Your task to perform on an android device: See recent photos Image 0: 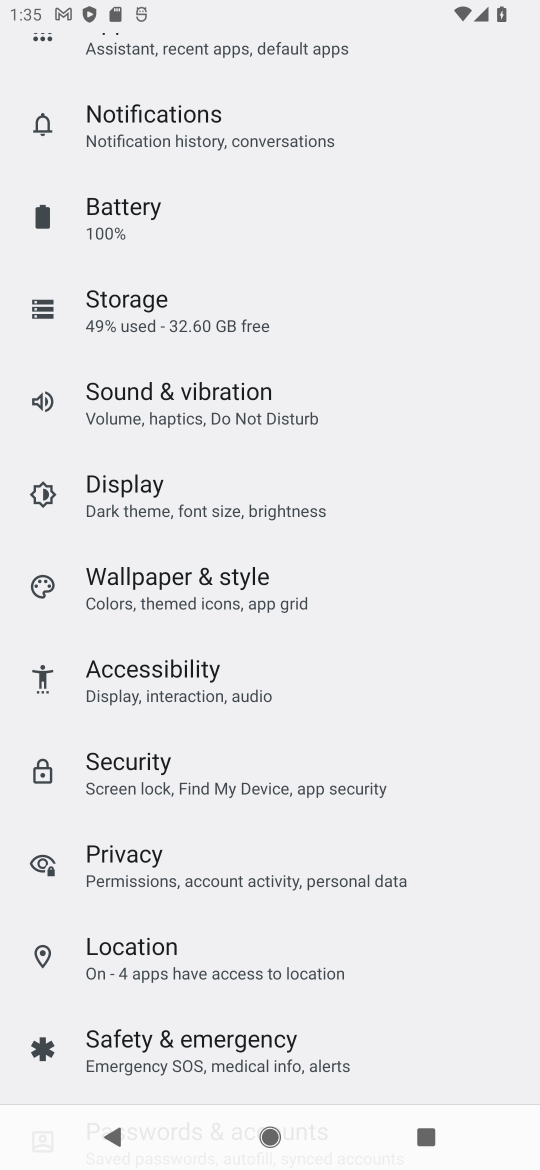
Step 0: press home button
Your task to perform on an android device: See recent photos Image 1: 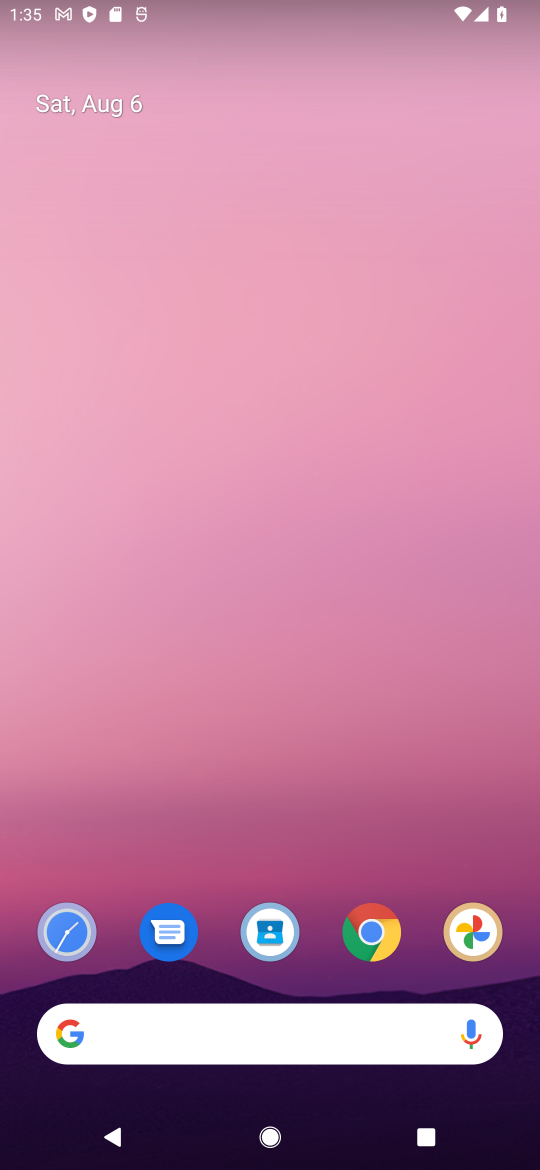
Step 1: drag from (316, 913) to (359, 23)
Your task to perform on an android device: See recent photos Image 2: 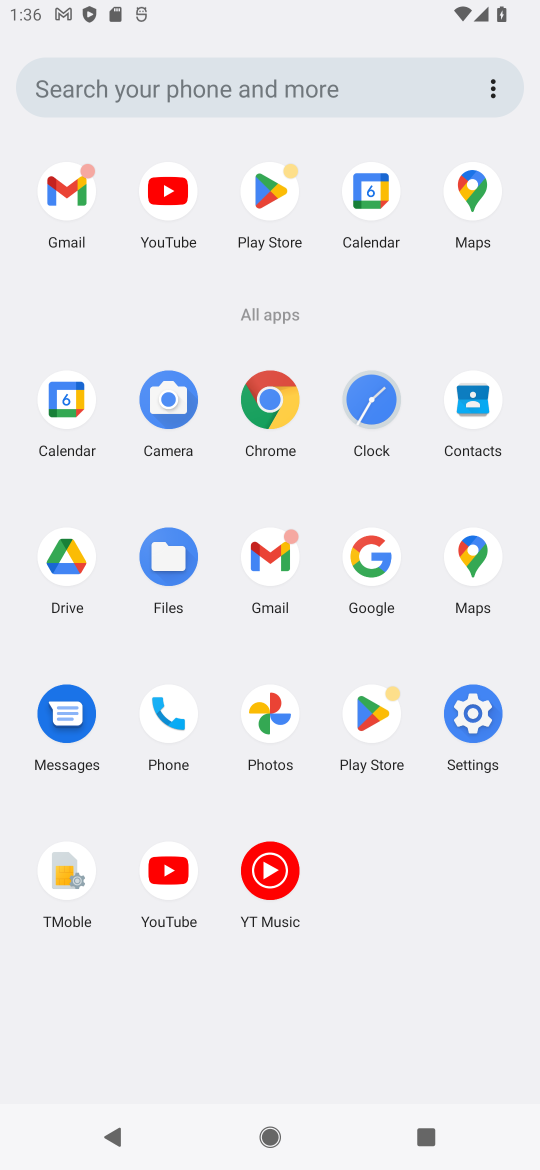
Step 2: click (276, 714)
Your task to perform on an android device: See recent photos Image 3: 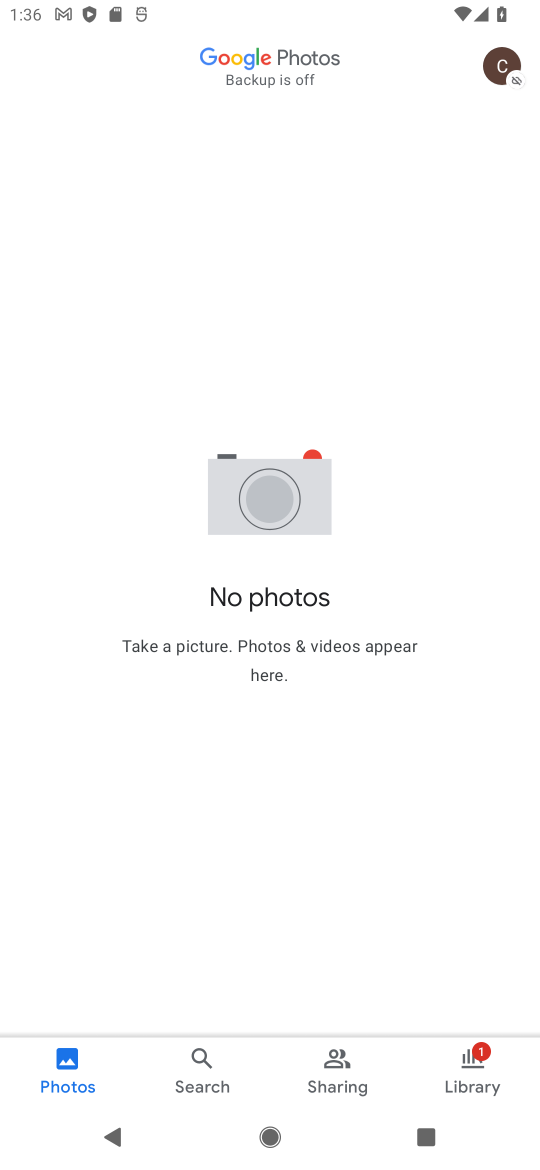
Step 3: click (60, 1069)
Your task to perform on an android device: See recent photos Image 4: 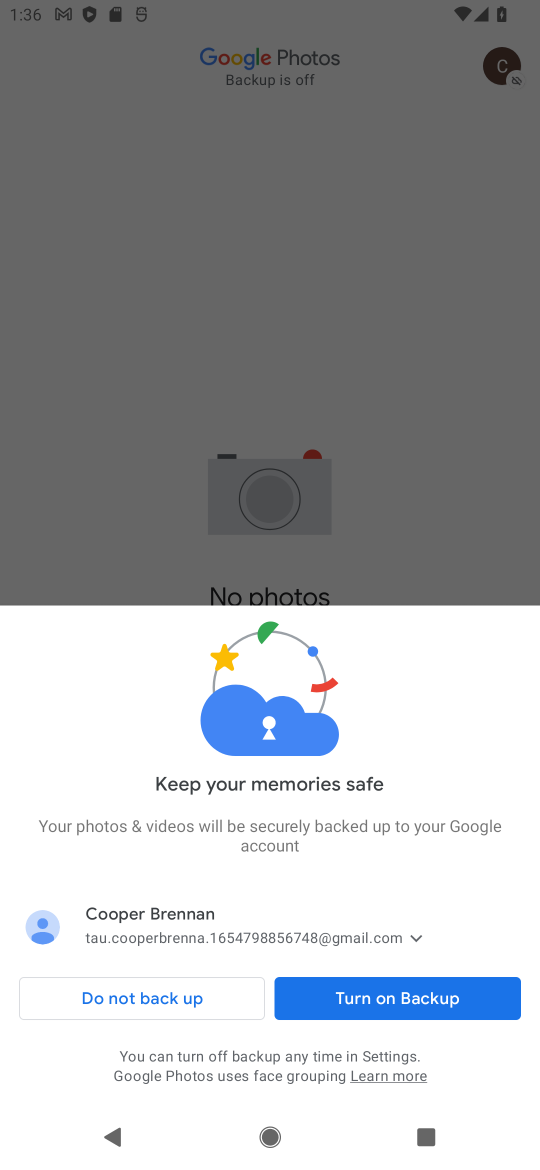
Step 4: click (407, 1003)
Your task to perform on an android device: See recent photos Image 5: 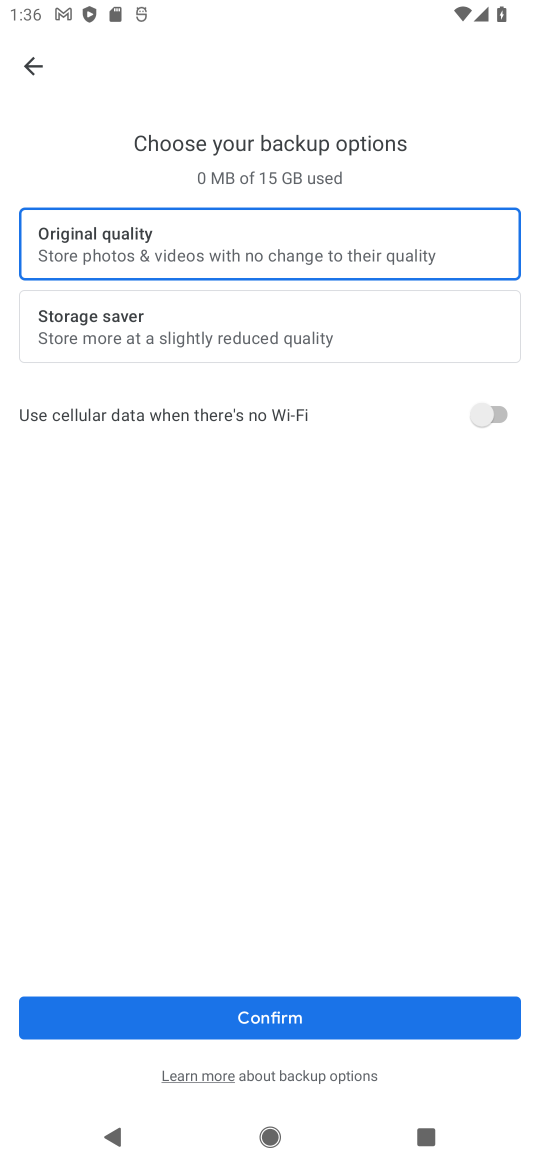
Step 5: click (245, 1015)
Your task to perform on an android device: See recent photos Image 6: 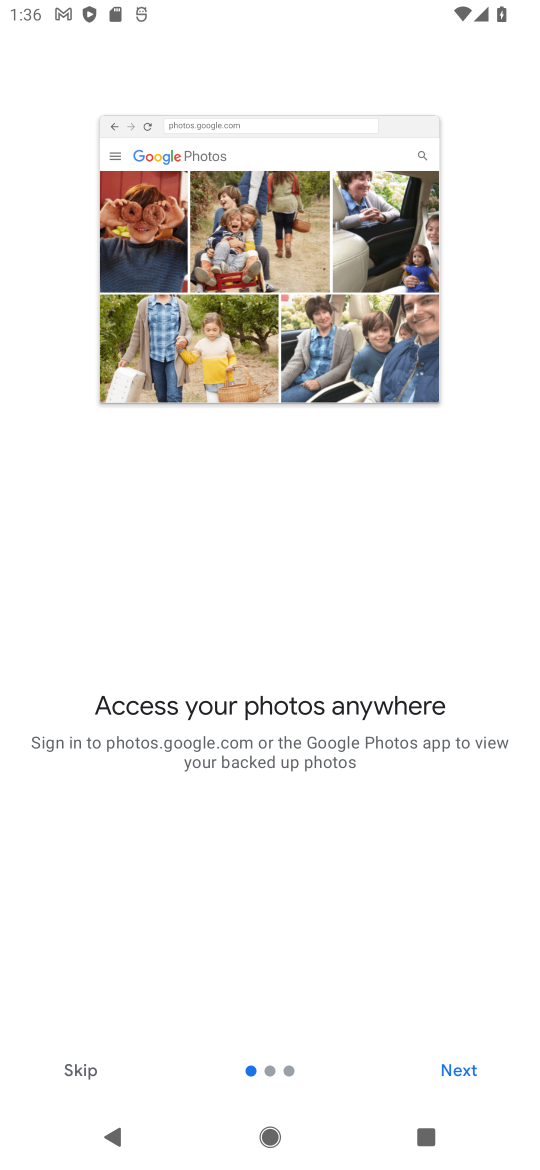
Step 6: click (448, 1065)
Your task to perform on an android device: See recent photos Image 7: 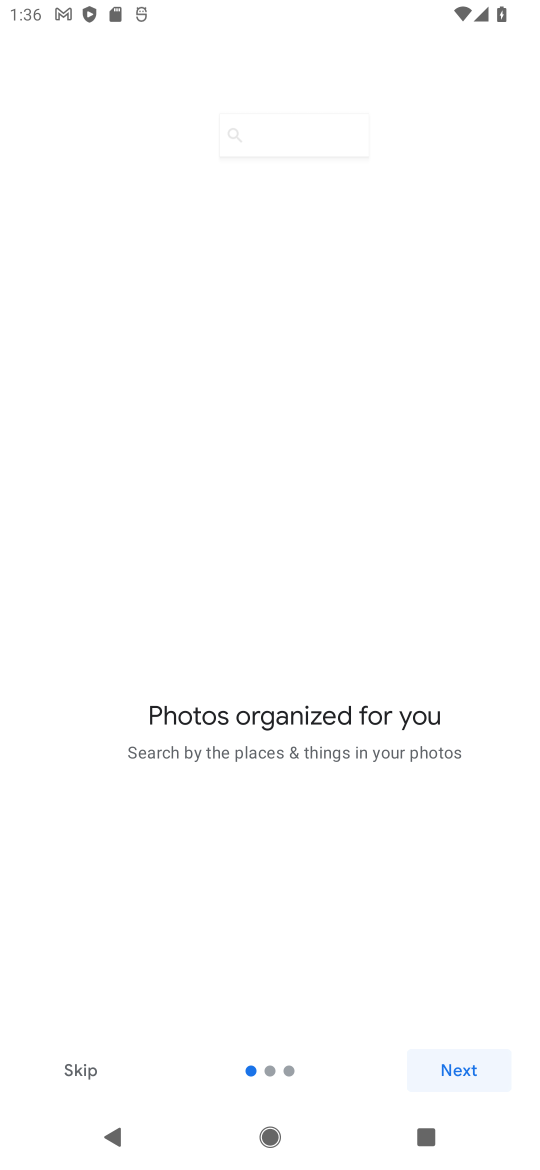
Step 7: click (448, 1065)
Your task to perform on an android device: See recent photos Image 8: 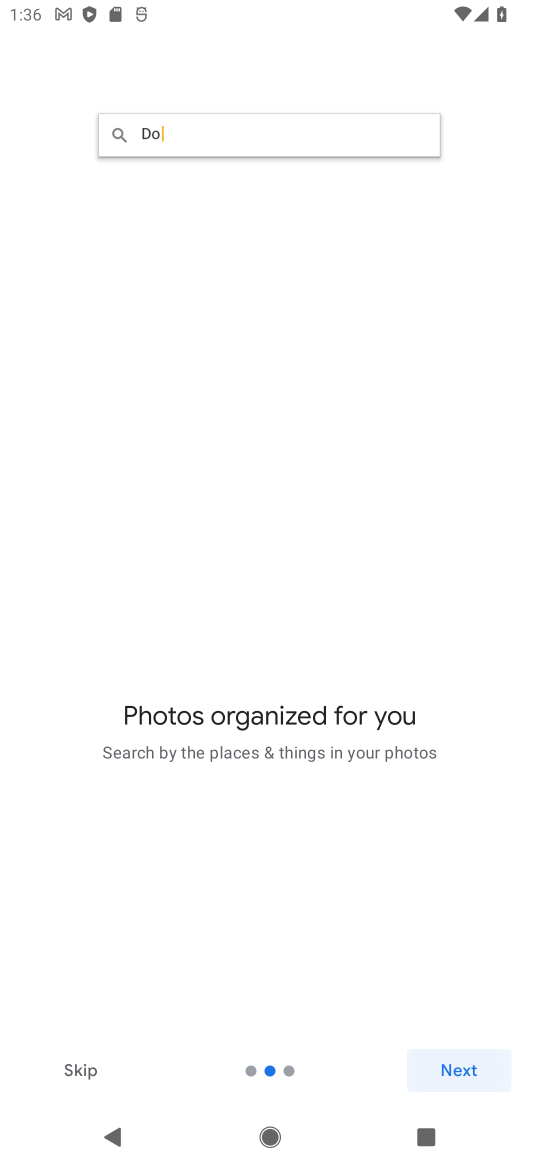
Step 8: click (448, 1065)
Your task to perform on an android device: See recent photos Image 9: 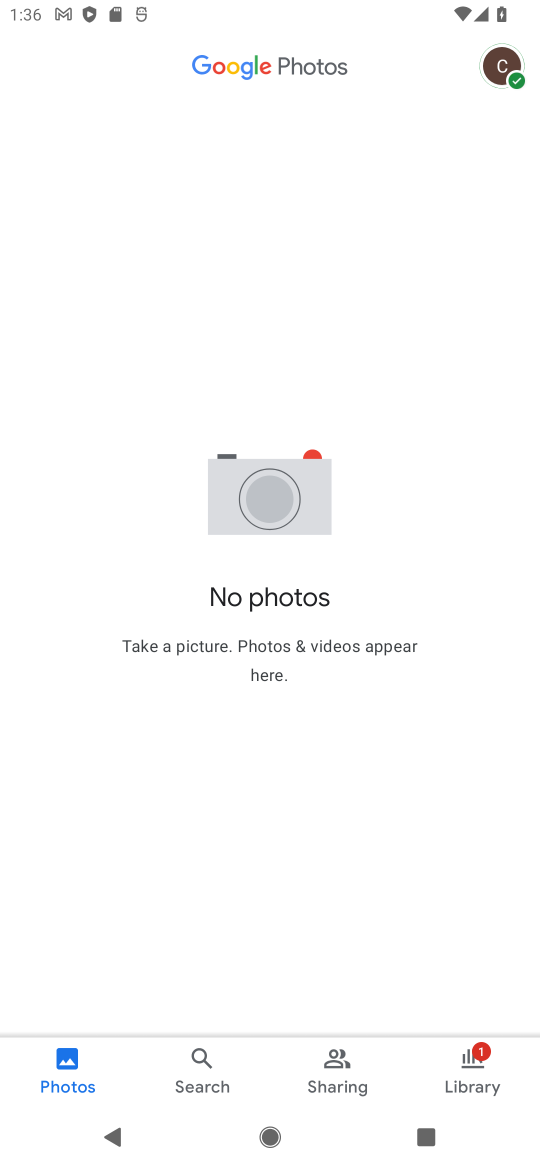
Step 9: click (72, 1057)
Your task to perform on an android device: See recent photos Image 10: 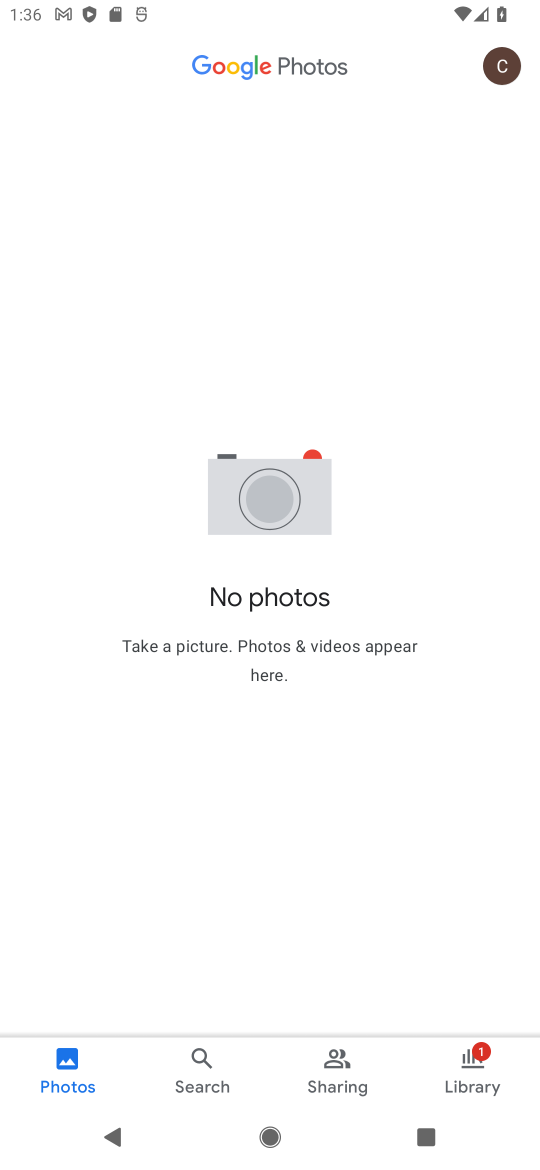
Step 10: task complete